Your task to perform on an android device: Open maps Image 0: 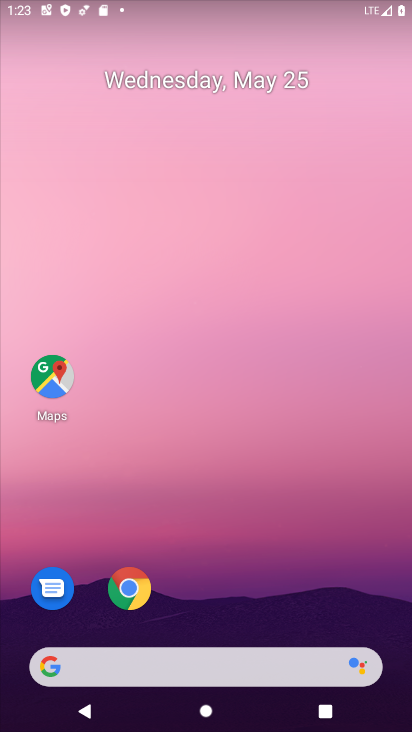
Step 0: click (49, 374)
Your task to perform on an android device: Open maps Image 1: 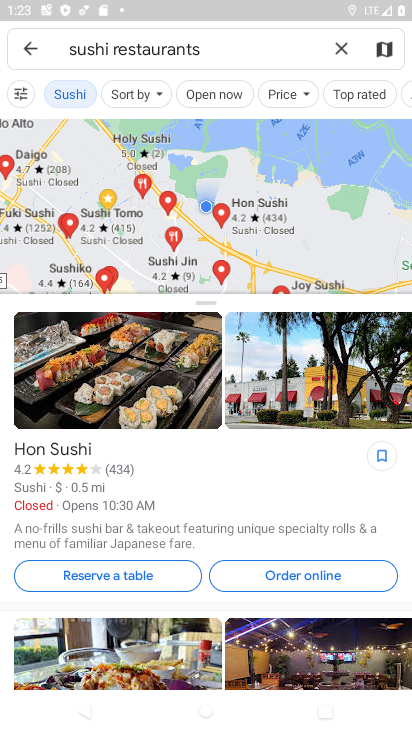
Step 1: task complete